Your task to perform on an android device: What's on my calendar tomorrow? Image 0: 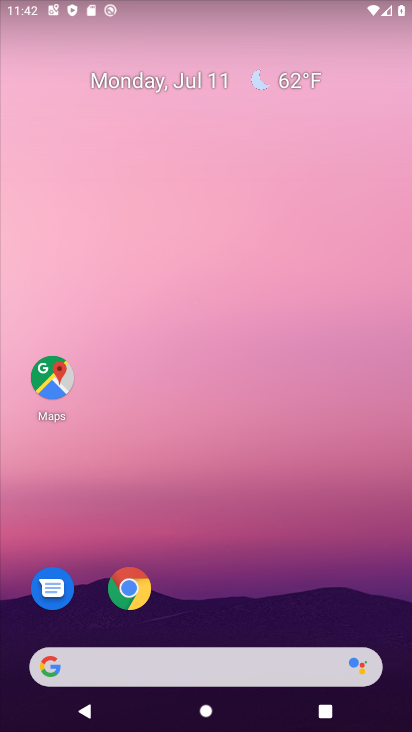
Step 0: drag from (196, 350) to (215, 94)
Your task to perform on an android device: What's on my calendar tomorrow? Image 1: 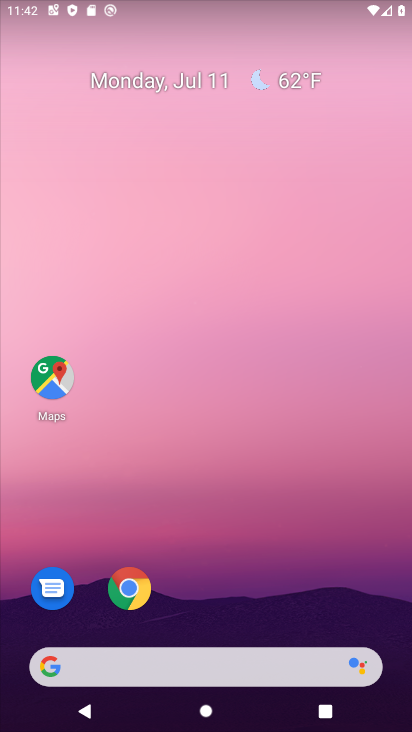
Step 1: drag from (202, 570) to (184, 78)
Your task to perform on an android device: What's on my calendar tomorrow? Image 2: 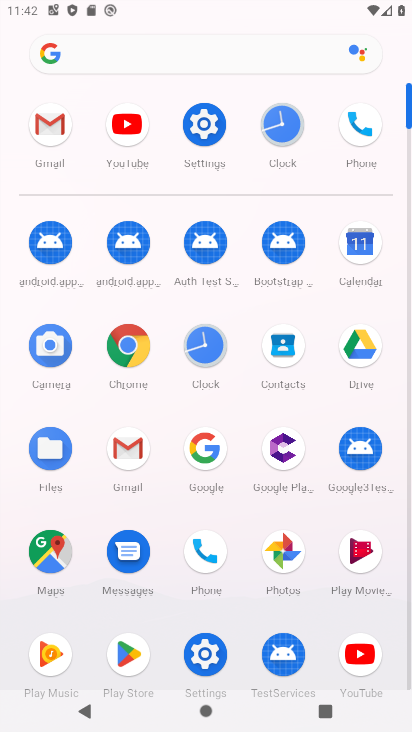
Step 2: click (361, 267)
Your task to perform on an android device: What's on my calendar tomorrow? Image 3: 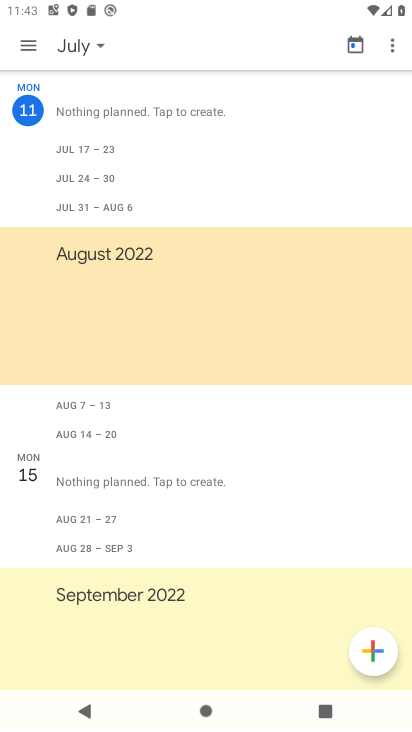
Step 3: click (97, 49)
Your task to perform on an android device: What's on my calendar tomorrow? Image 4: 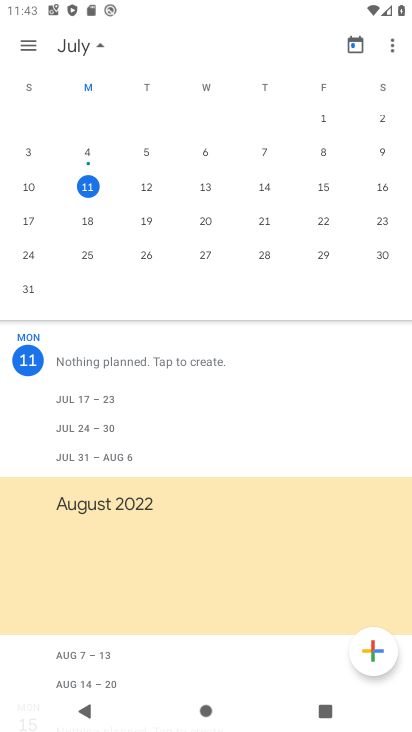
Step 4: click (149, 194)
Your task to perform on an android device: What's on my calendar tomorrow? Image 5: 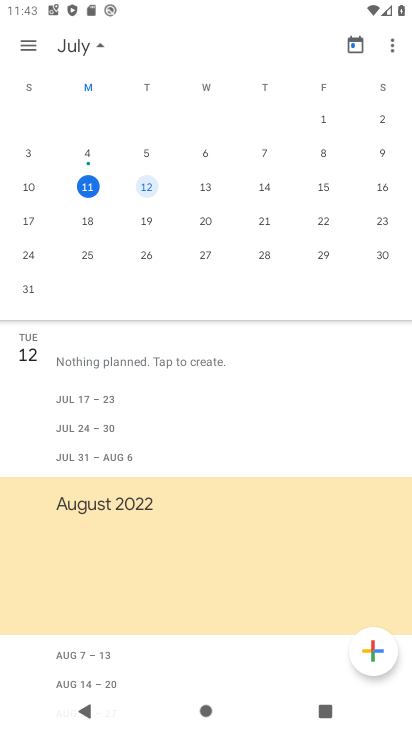
Step 5: click (149, 194)
Your task to perform on an android device: What's on my calendar tomorrow? Image 6: 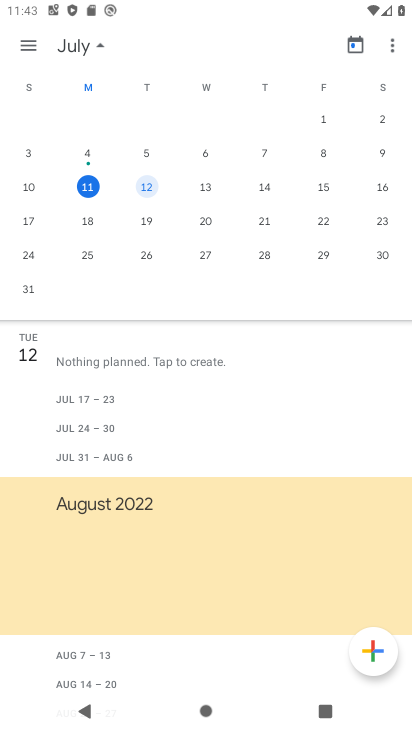
Step 6: click (149, 194)
Your task to perform on an android device: What's on my calendar tomorrow? Image 7: 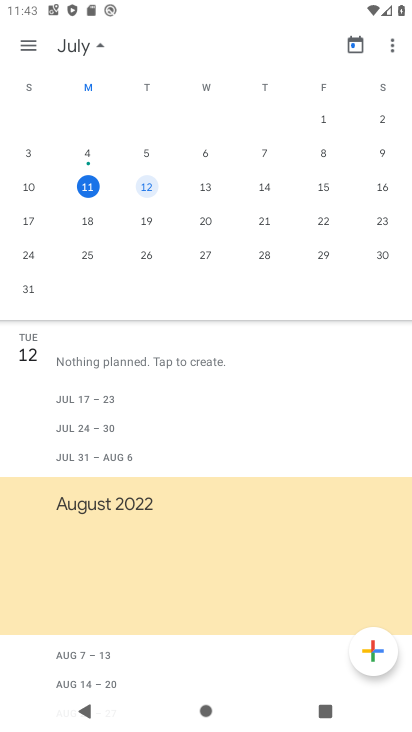
Step 7: task complete